Your task to perform on an android device: Open Google Chrome and open the bookmarks view Image 0: 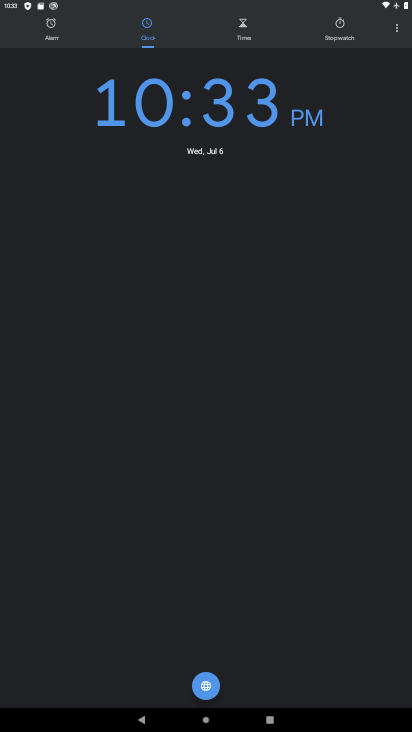
Step 0: press home button
Your task to perform on an android device: Open Google Chrome and open the bookmarks view Image 1: 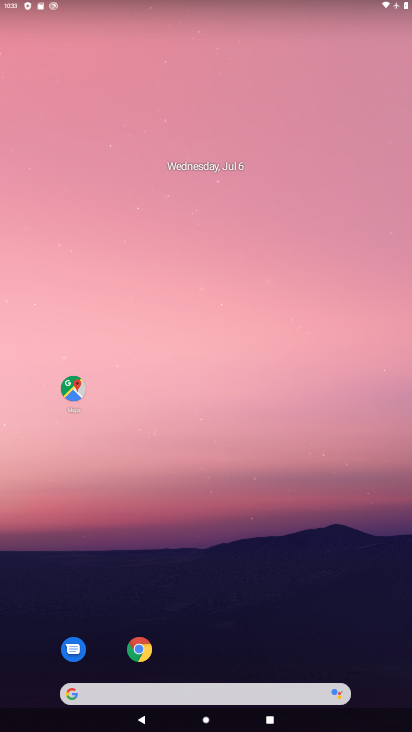
Step 1: drag from (385, 714) to (253, 83)
Your task to perform on an android device: Open Google Chrome and open the bookmarks view Image 2: 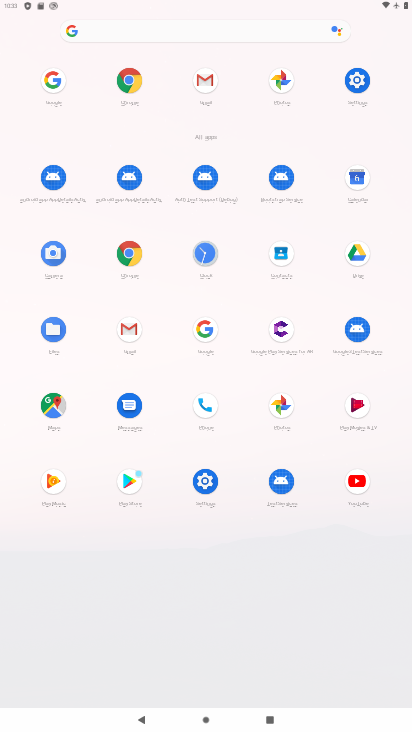
Step 2: click (134, 85)
Your task to perform on an android device: Open Google Chrome and open the bookmarks view Image 3: 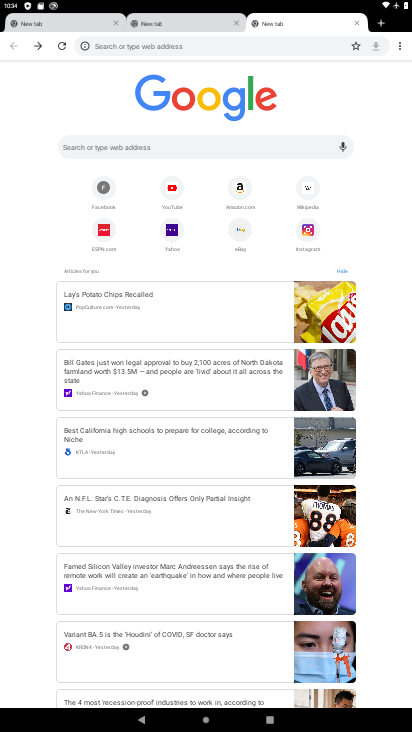
Step 3: press home button
Your task to perform on an android device: Open Google Chrome and open the bookmarks view Image 4: 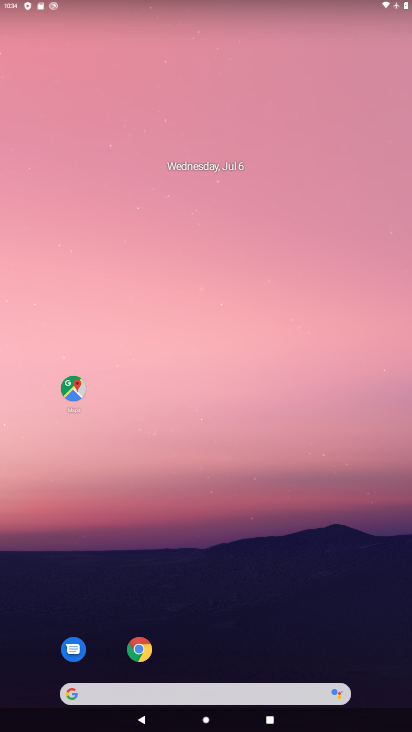
Step 4: click (132, 642)
Your task to perform on an android device: Open Google Chrome and open the bookmarks view Image 5: 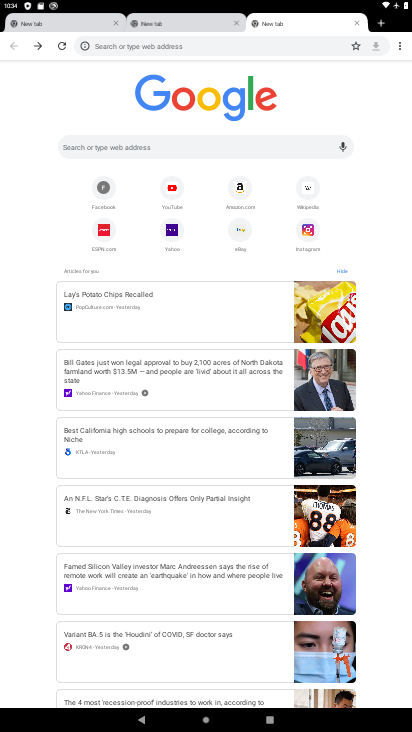
Step 5: click (403, 43)
Your task to perform on an android device: Open Google Chrome and open the bookmarks view Image 6: 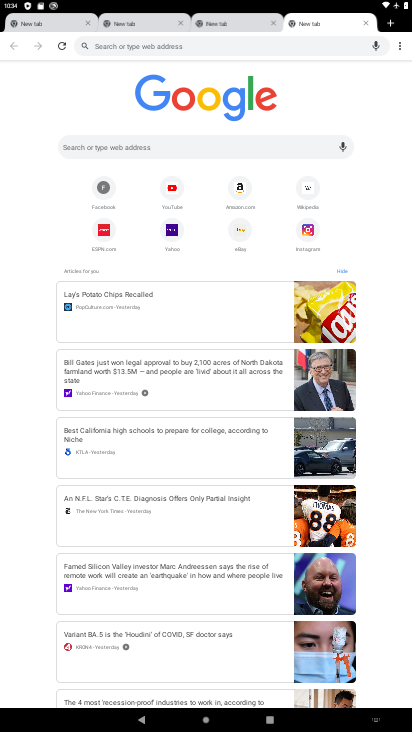
Step 6: click (396, 44)
Your task to perform on an android device: Open Google Chrome and open the bookmarks view Image 7: 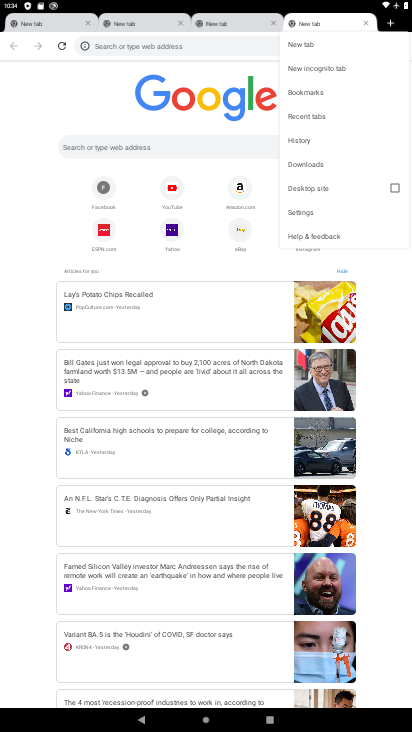
Step 7: click (301, 86)
Your task to perform on an android device: Open Google Chrome and open the bookmarks view Image 8: 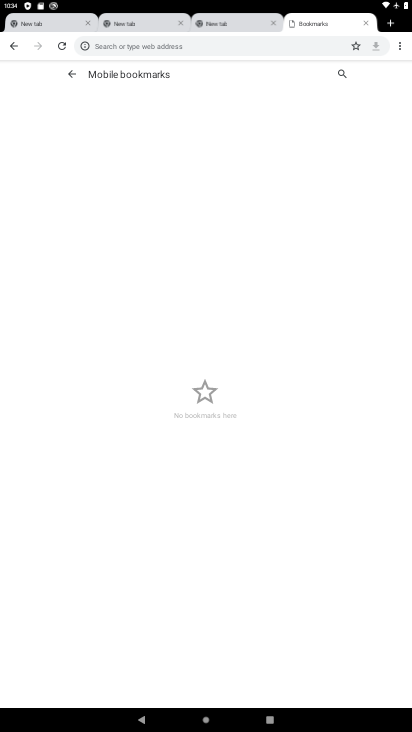
Step 8: task complete